Your task to perform on an android device: Open Google Image 0: 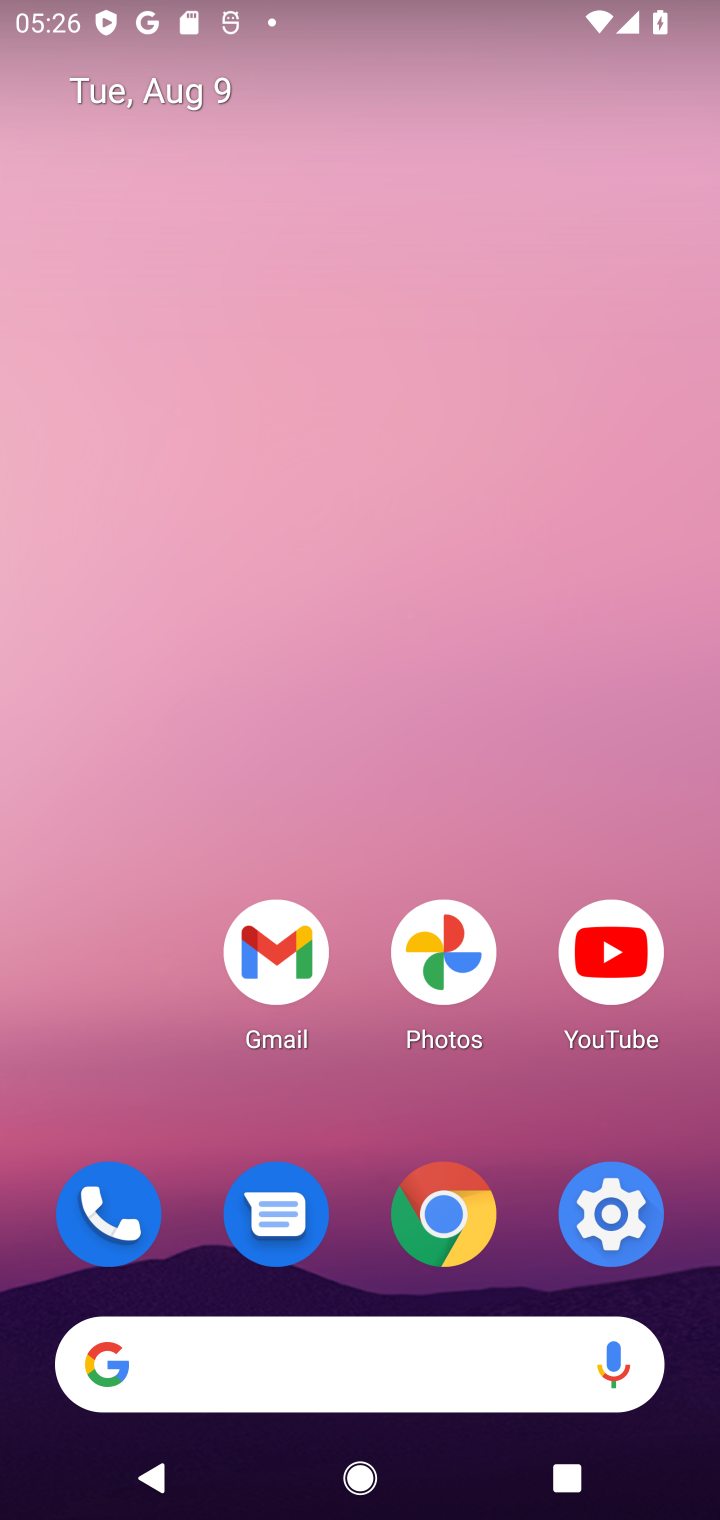
Step 0: press home button
Your task to perform on an android device: Open Google Image 1: 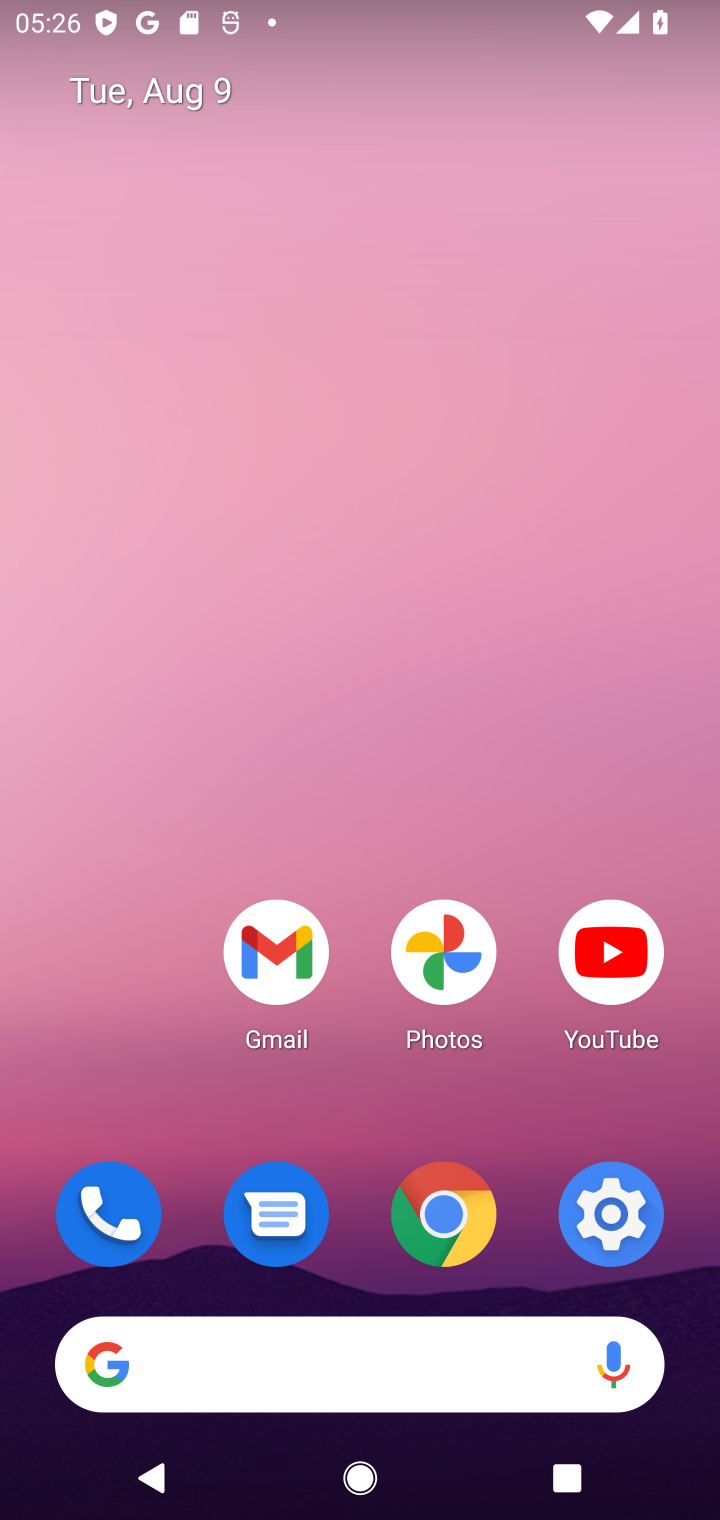
Step 1: click (101, 1359)
Your task to perform on an android device: Open Google Image 2: 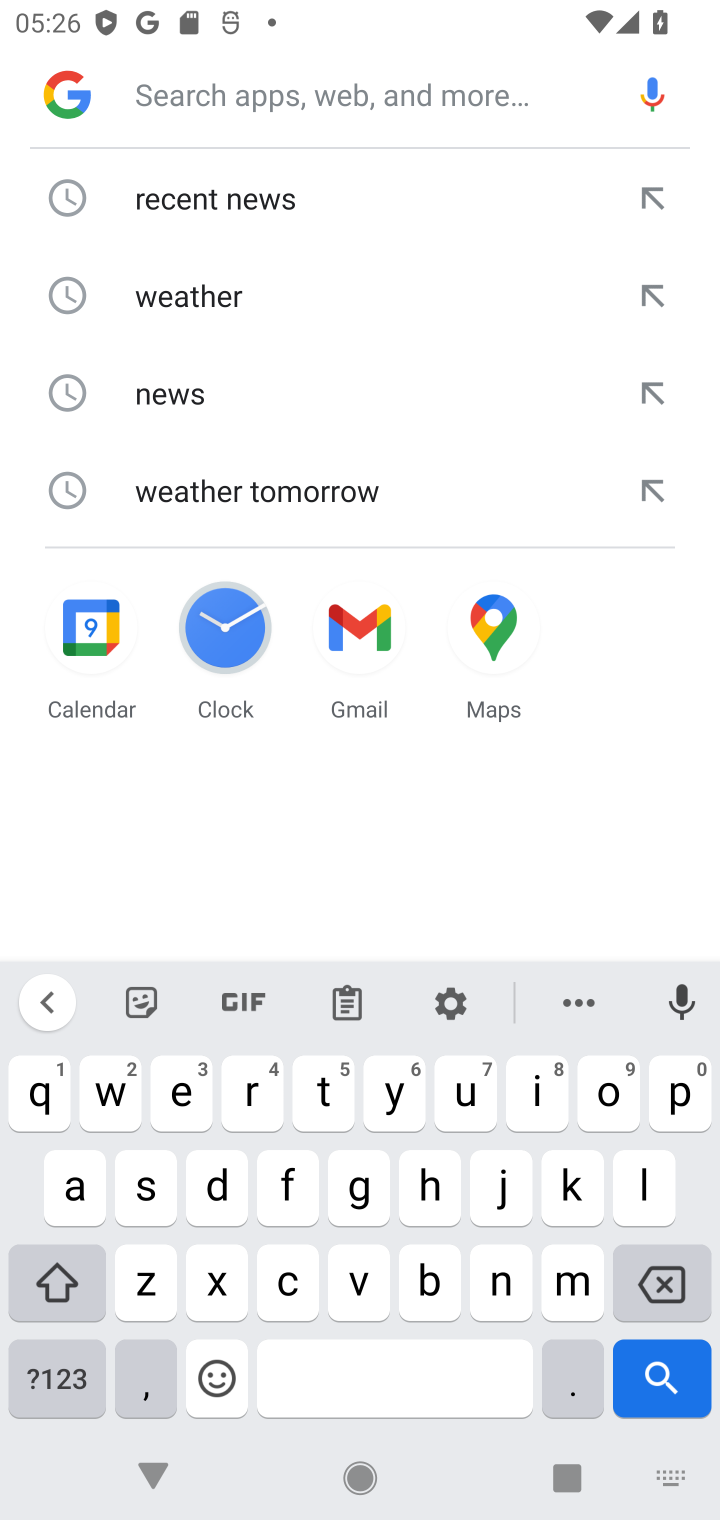
Step 2: click (83, 91)
Your task to perform on an android device: Open Google Image 3: 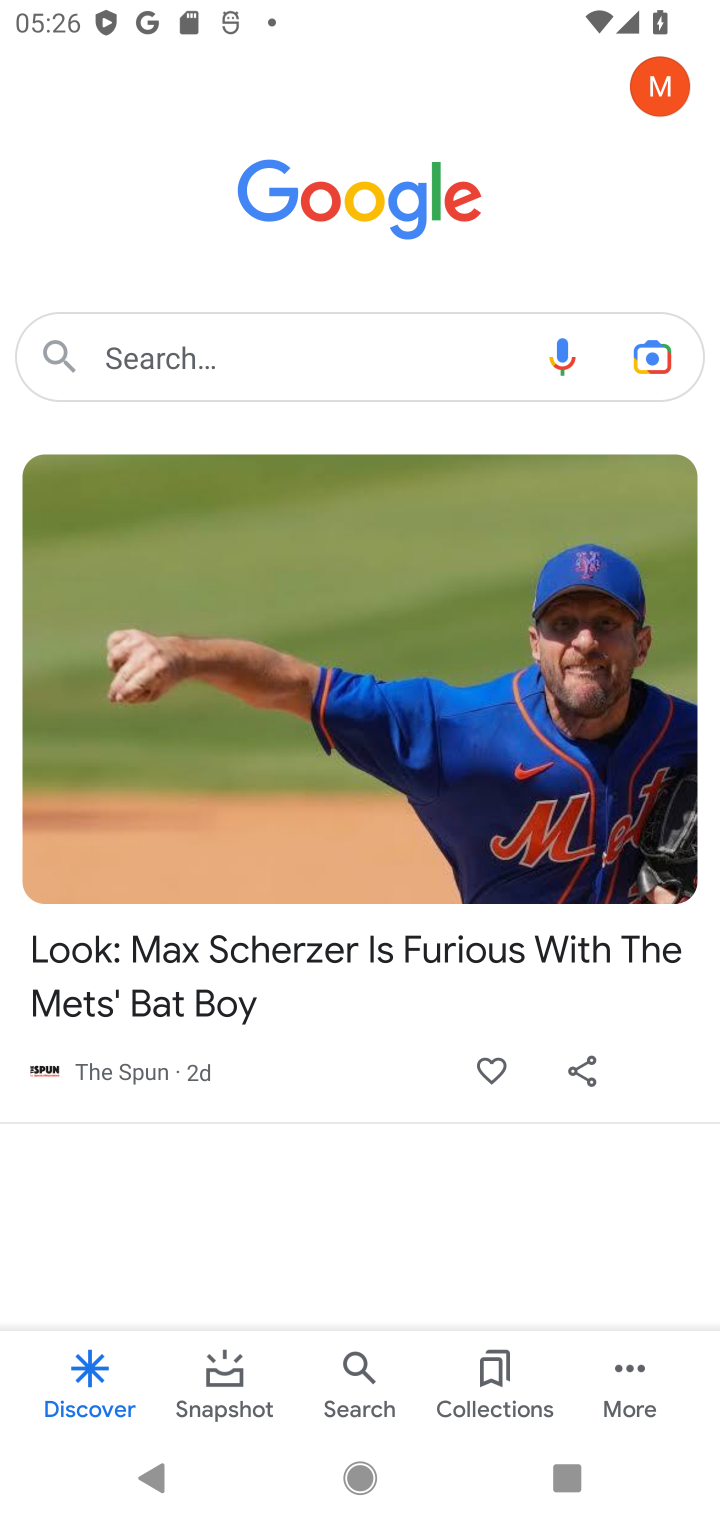
Step 3: task complete